Your task to perform on an android device: delete location history Image 0: 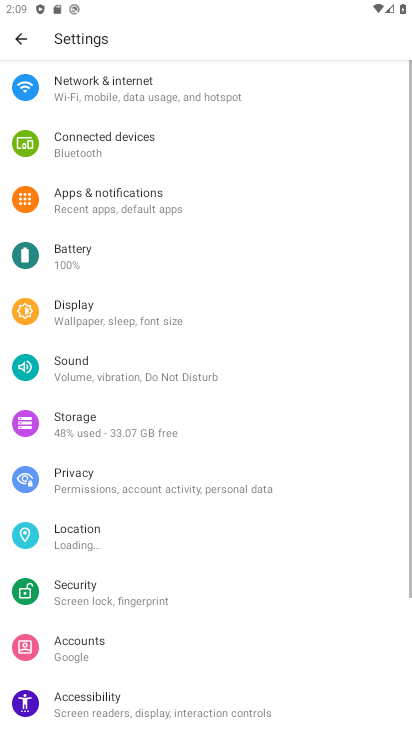
Step 0: press home button
Your task to perform on an android device: delete location history Image 1: 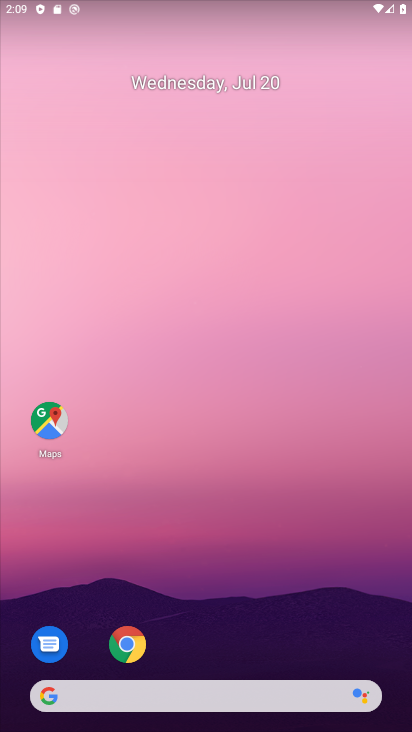
Step 1: click (47, 429)
Your task to perform on an android device: delete location history Image 2: 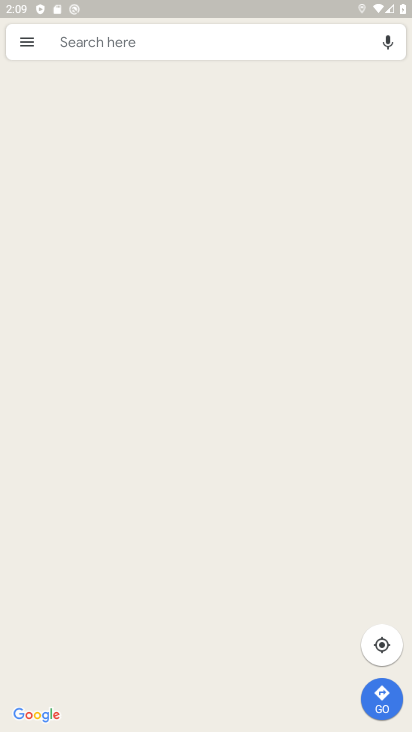
Step 2: click (24, 42)
Your task to perform on an android device: delete location history Image 3: 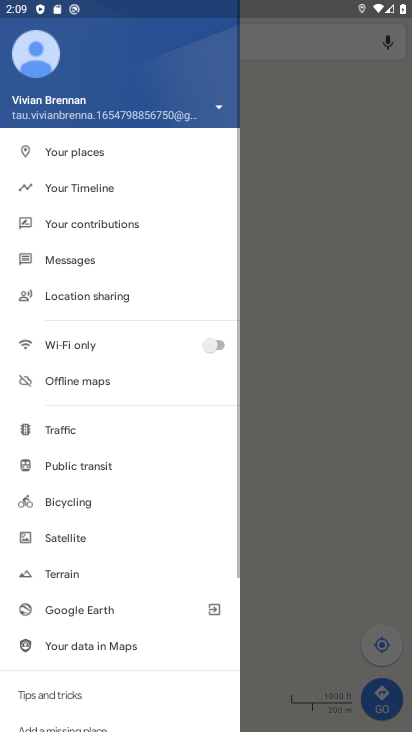
Step 3: click (93, 186)
Your task to perform on an android device: delete location history Image 4: 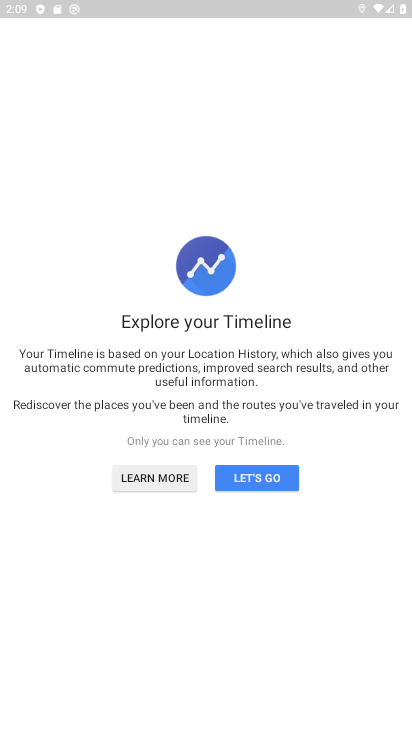
Step 4: click (240, 484)
Your task to perform on an android device: delete location history Image 5: 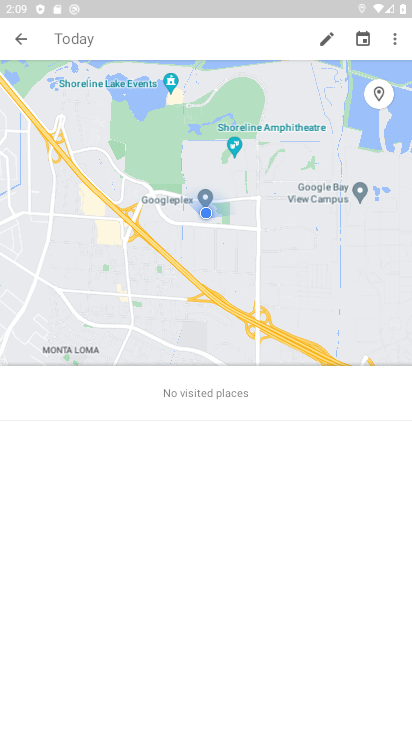
Step 5: click (390, 29)
Your task to perform on an android device: delete location history Image 6: 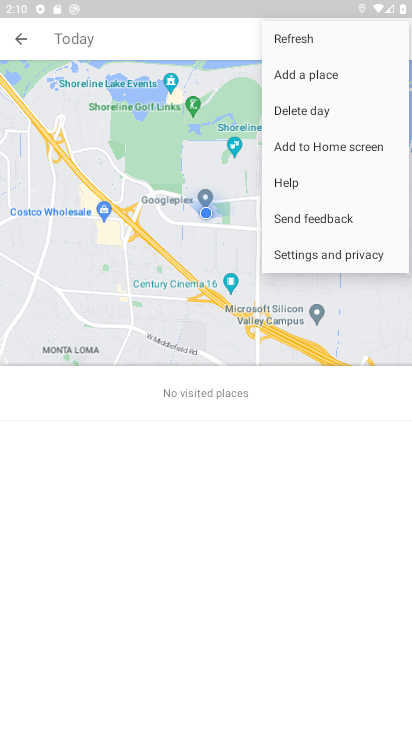
Step 6: click (352, 259)
Your task to perform on an android device: delete location history Image 7: 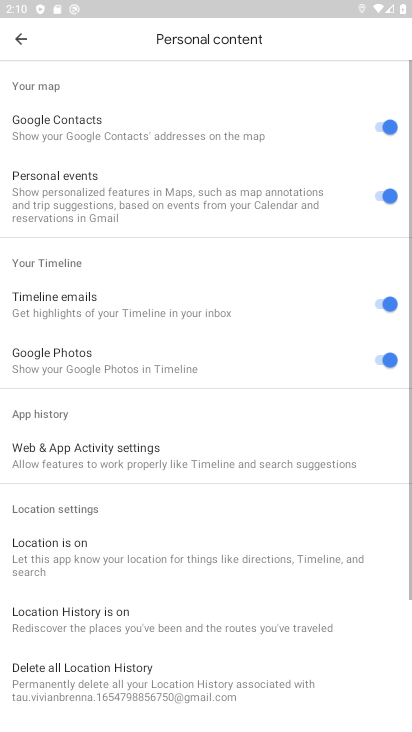
Step 7: click (157, 659)
Your task to perform on an android device: delete location history Image 8: 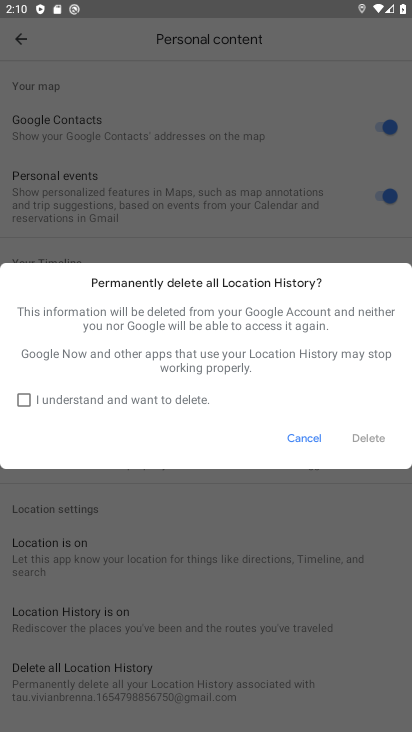
Step 8: click (26, 405)
Your task to perform on an android device: delete location history Image 9: 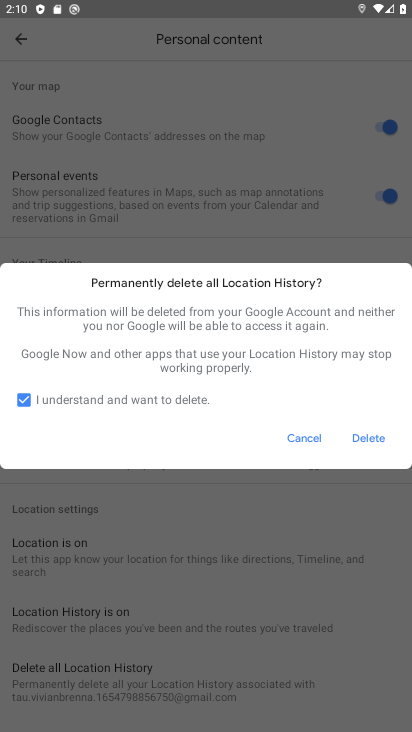
Step 9: click (383, 429)
Your task to perform on an android device: delete location history Image 10: 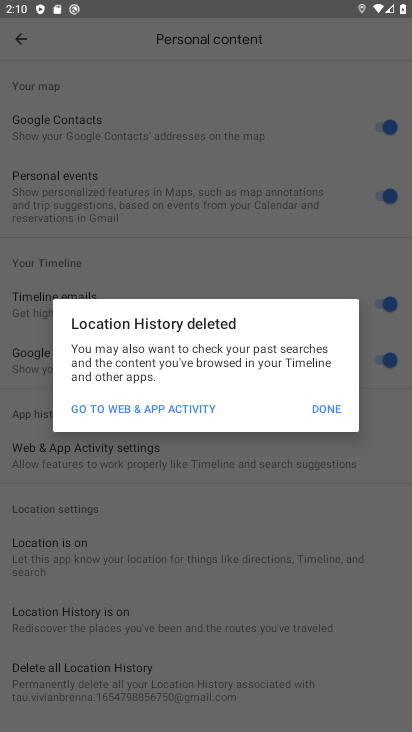
Step 10: click (319, 398)
Your task to perform on an android device: delete location history Image 11: 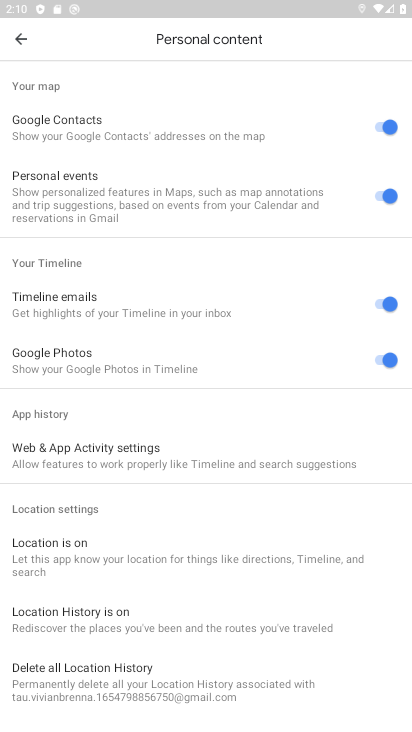
Step 11: task complete